Your task to perform on an android device: toggle improve location accuracy Image 0: 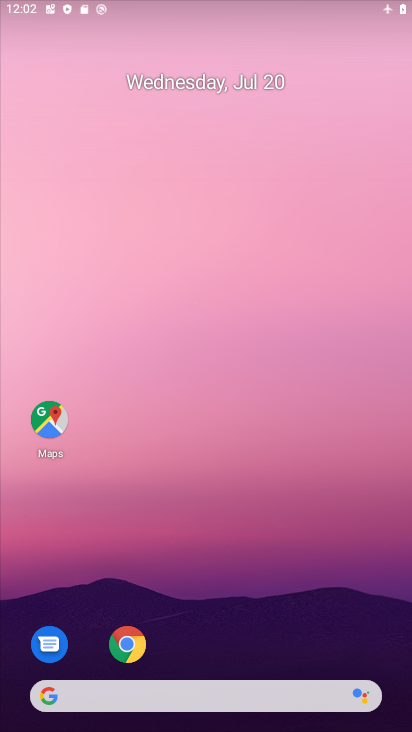
Step 0: press home button
Your task to perform on an android device: toggle improve location accuracy Image 1: 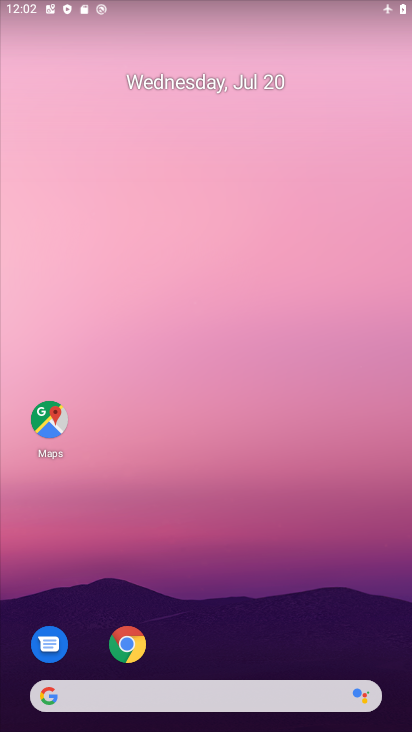
Step 1: drag from (282, 616) to (271, 124)
Your task to perform on an android device: toggle improve location accuracy Image 2: 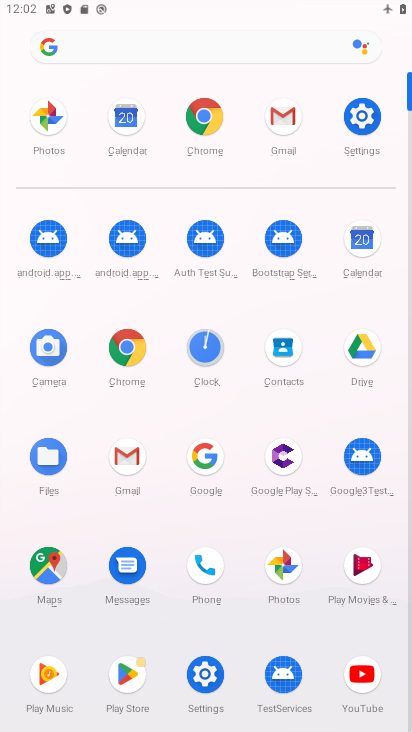
Step 2: click (205, 678)
Your task to perform on an android device: toggle improve location accuracy Image 3: 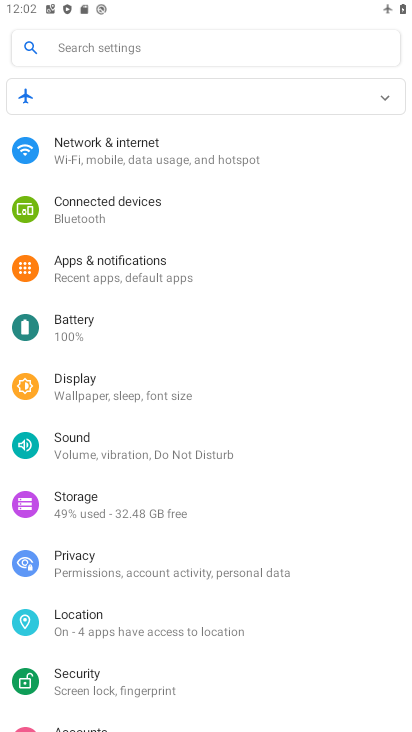
Step 3: click (121, 623)
Your task to perform on an android device: toggle improve location accuracy Image 4: 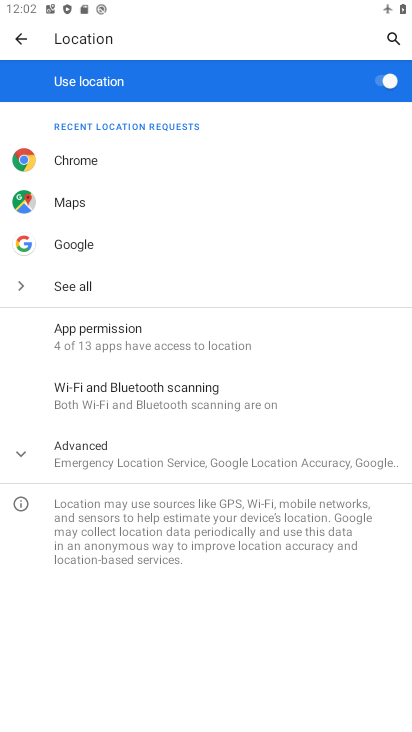
Step 4: click (158, 447)
Your task to perform on an android device: toggle improve location accuracy Image 5: 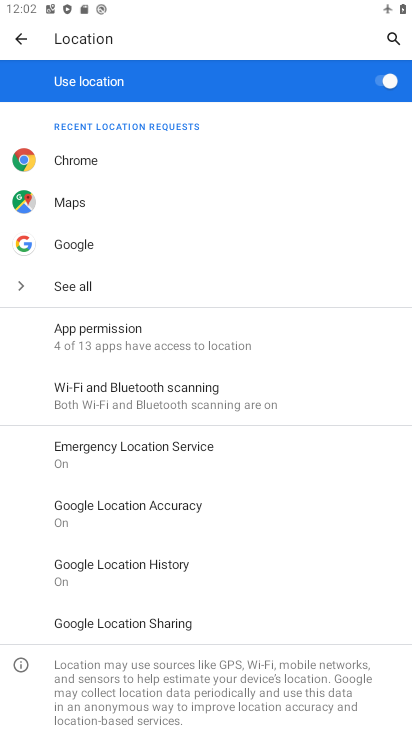
Step 5: click (122, 513)
Your task to perform on an android device: toggle improve location accuracy Image 6: 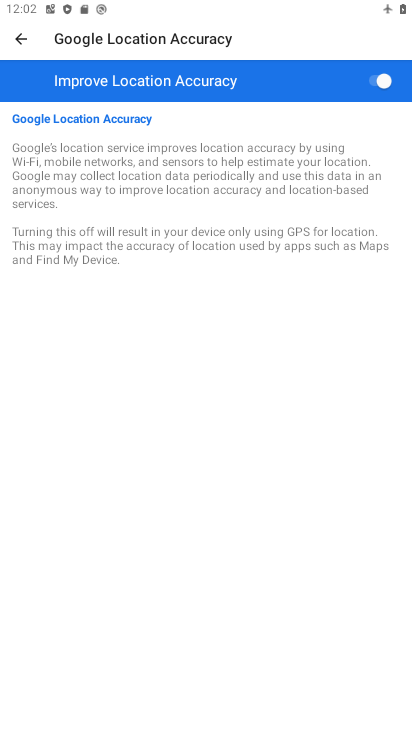
Step 6: click (214, 89)
Your task to perform on an android device: toggle improve location accuracy Image 7: 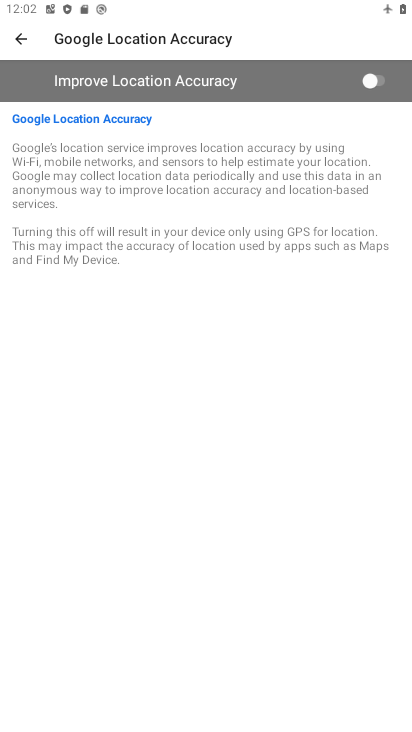
Step 7: task complete